Your task to perform on an android device: Is it going to rain today? Image 0: 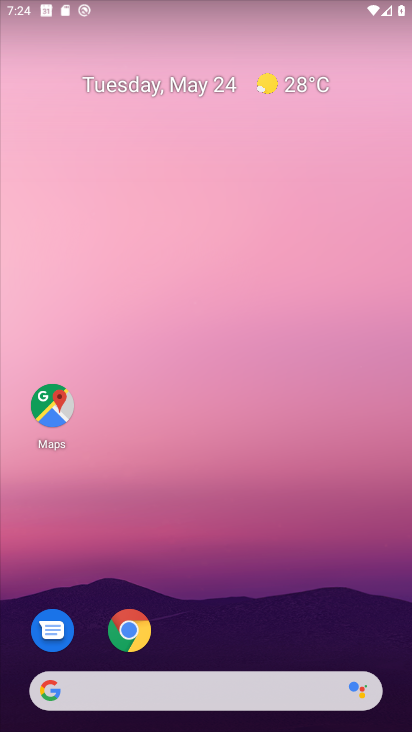
Step 0: drag from (224, 705) to (162, 147)
Your task to perform on an android device: Is it going to rain today? Image 1: 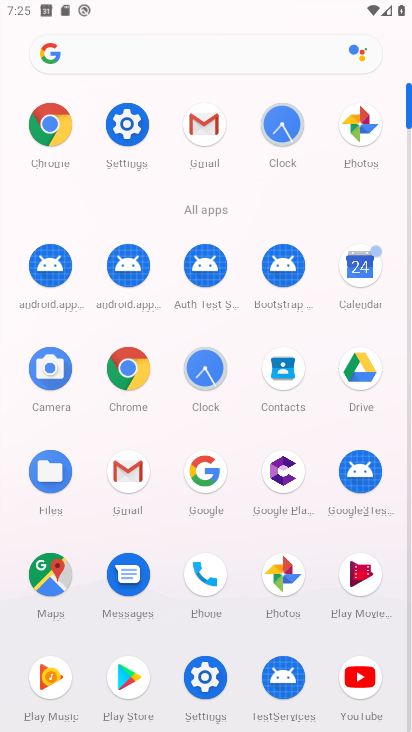
Step 1: click (137, 69)
Your task to perform on an android device: Is it going to rain today? Image 2: 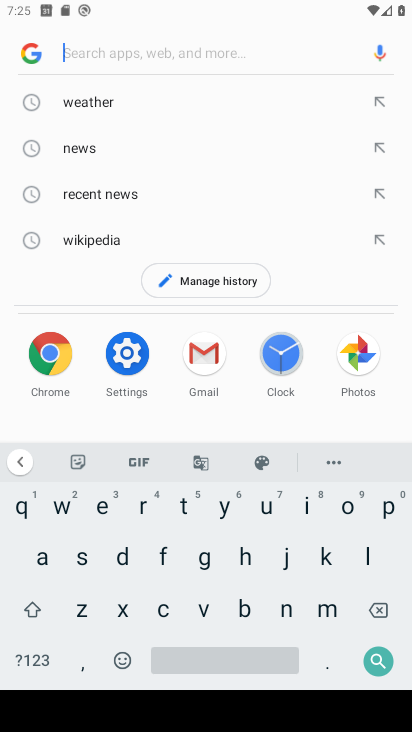
Step 2: click (124, 103)
Your task to perform on an android device: Is it going to rain today? Image 3: 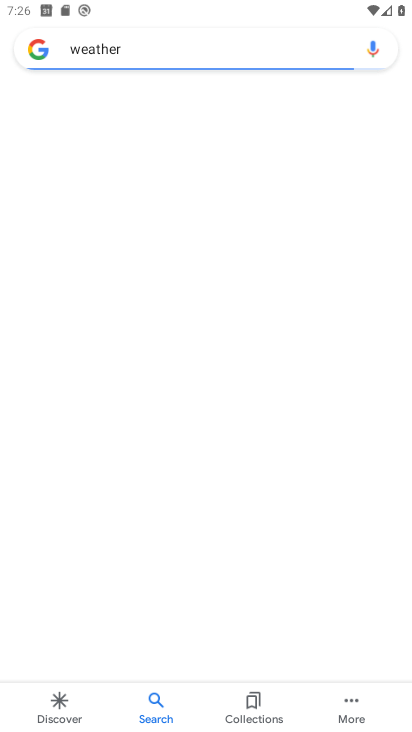
Step 3: task complete